Your task to perform on an android device: search for starred emails in the gmail app Image 0: 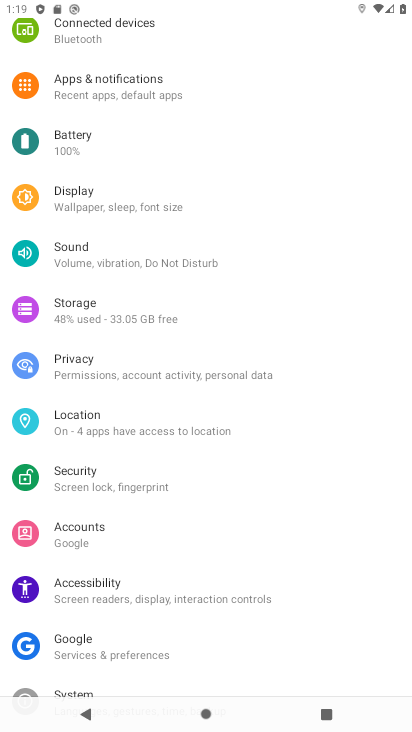
Step 0: press home button
Your task to perform on an android device: search for starred emails in the gmail app Image 1: 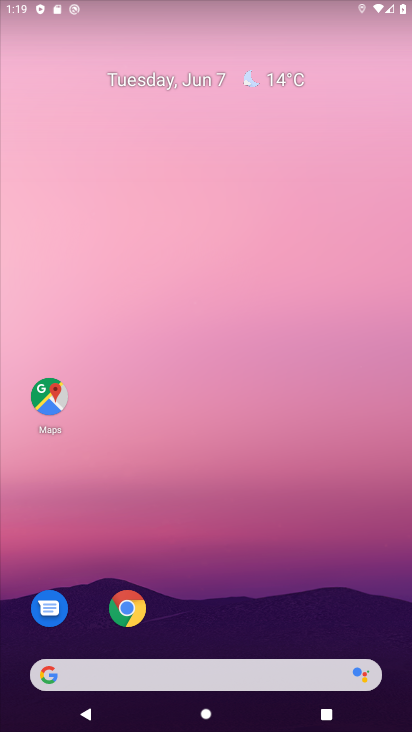
Step 1: drag from (328, 551) to (334, 89)
Your task to perform on an android device: search for starred emails in the gmail app Image 2: 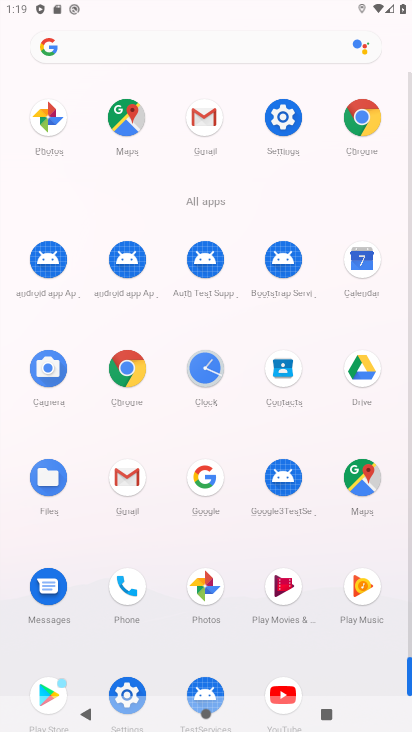
Step 2: click (137, 479)
Your task to perform on an android device: search for starred emails in the gmail app Image 3: 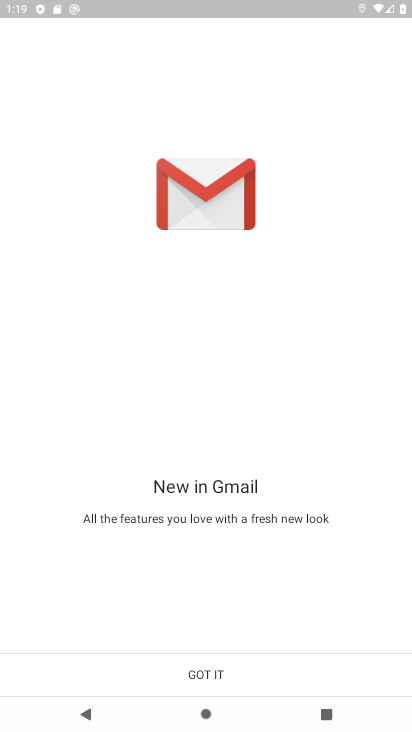
Step 3: click (202, 681)
Your task to perform on an android device: search for starred emails in the gmail app Image 4: 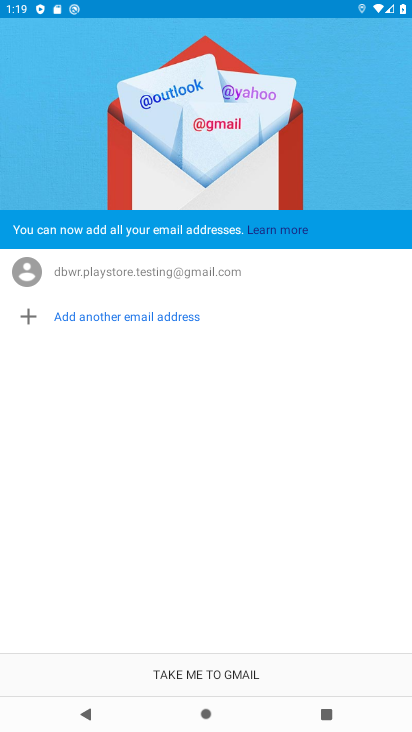
Step 4: click (202, 681)
Your task to perform on an android device: search for starred emails in the gmail app Image 5: 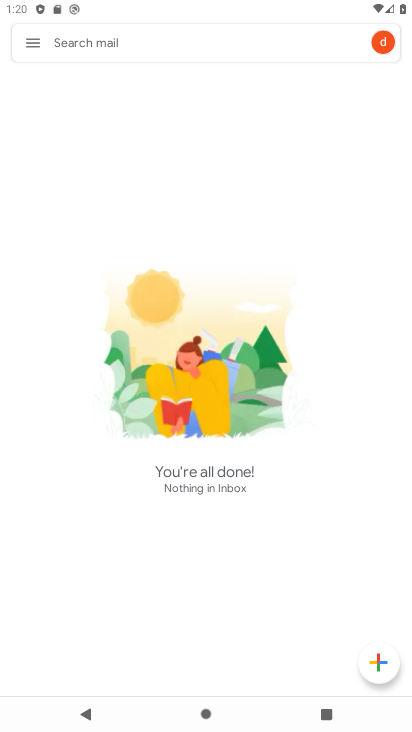
Step 5: click (28, 38)
Your task to perform on an android device: search for starred emails in the gmail app Image 6: 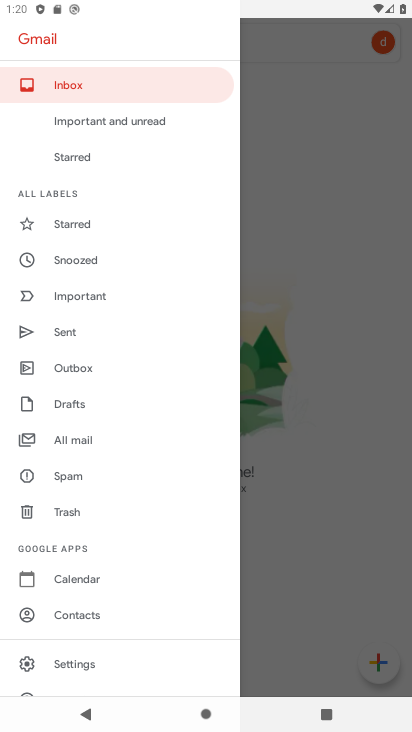
Step 6: drag from (153, 648) to (201, 311)
Your task to perform on an android device: search for starred emails in the gmail app Image 7: 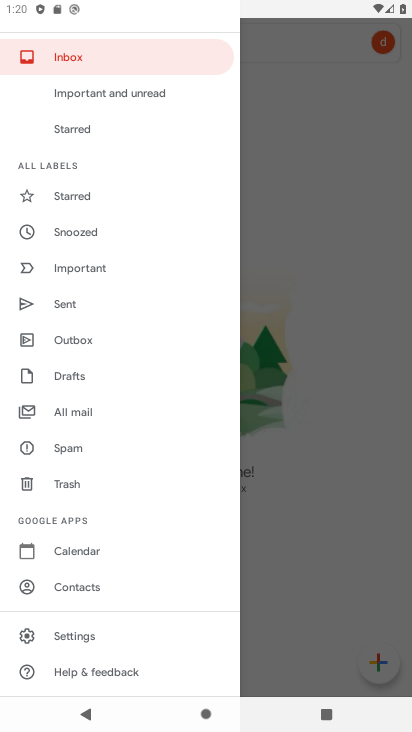
Step 7: click (125, 194)
Your task to perform on an android device: search for starred emails in the gmail app Image 8: 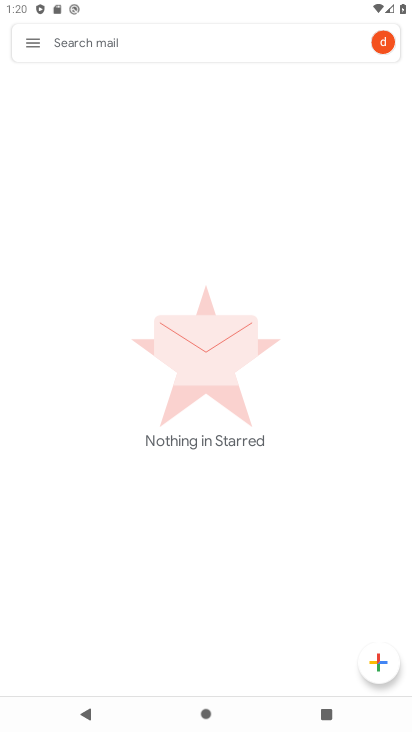
Step 8: task complete